Your task to perform on an android device: Search for seafood restaurants on Google Maps Image 0: 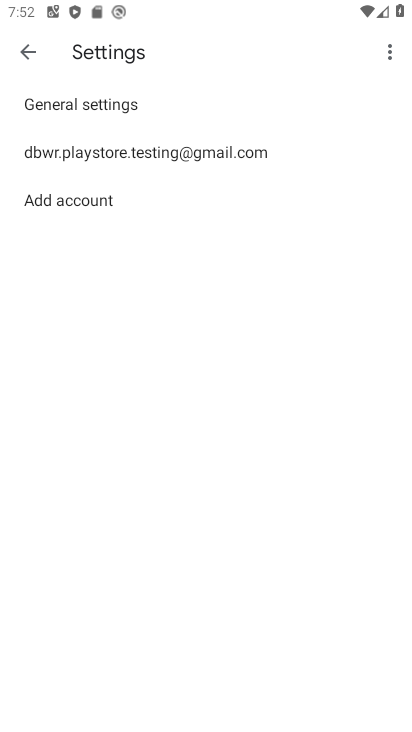
Step 0: press home button
Your task to perform on an android device: Search for seafood restaurants on Google Maps Image 1: 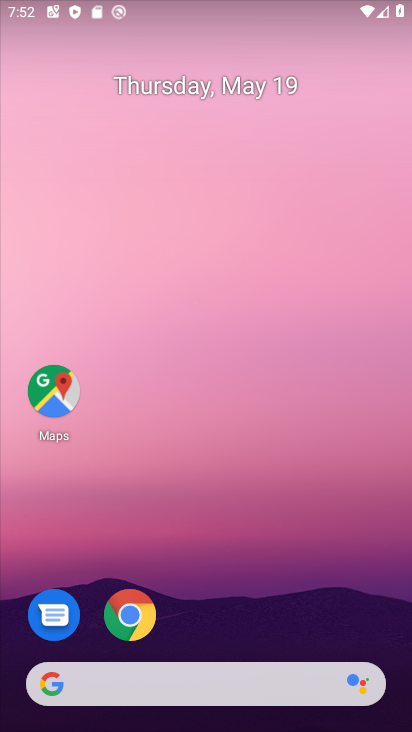
Step 1: drag from (307, 649) to (284, 187)
Your task to perform on an android device: Search for seafood restaurants on Google Maps Image 2: 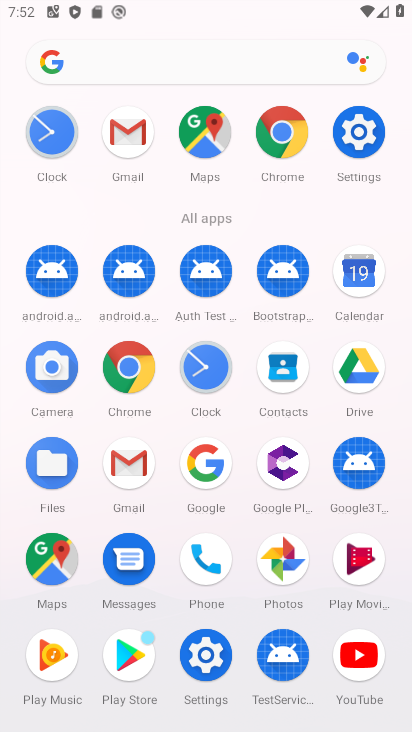
Step 2: click (66, 548)
Your task to perform on an android device: Search for seafood restaurants on Google Maps Image 3: 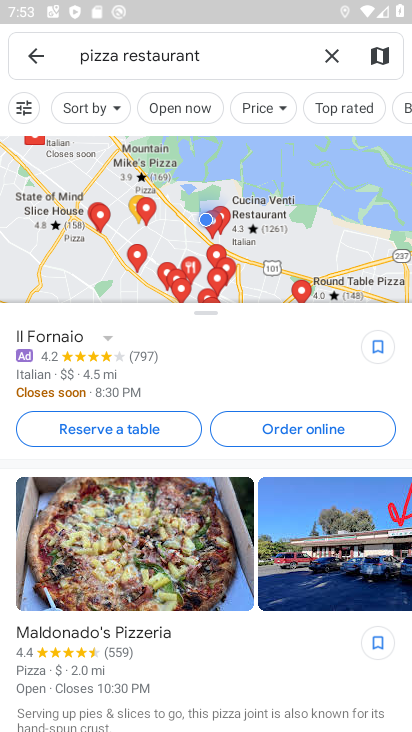
Step 3: click (328, 54)
Your task to perform on an android device: Search for seafood restaurants on Google Maps Image 4: 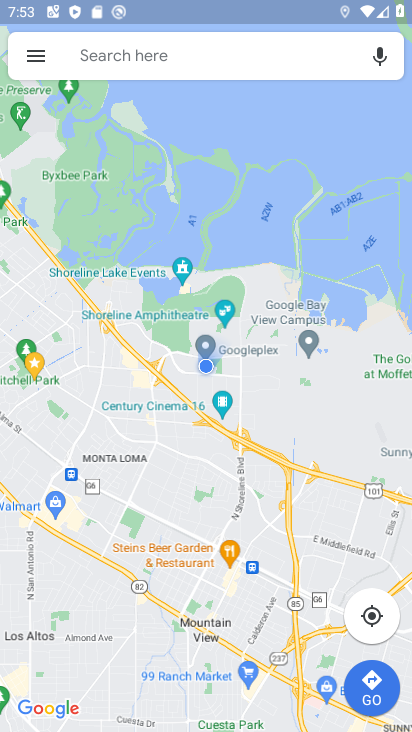
Step 4: click (277, 57)
Your task to perform on an android device: Search for seafood restaurants on Google Maps Image 5: 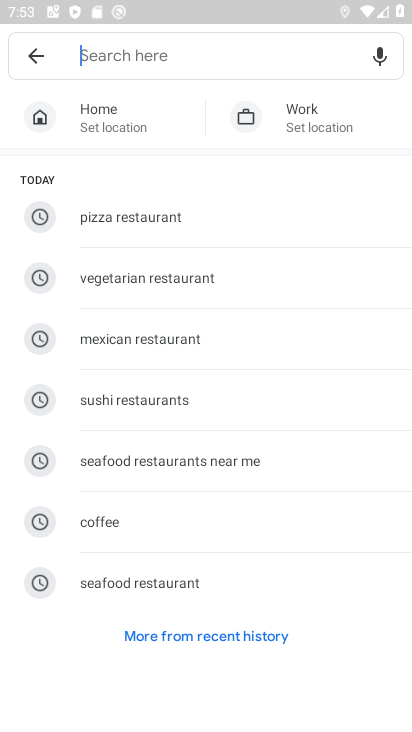
Step 5: click (277, 57)
Your task to perform on an android device: Search for seafood restaurants on Google Maps Image 6: 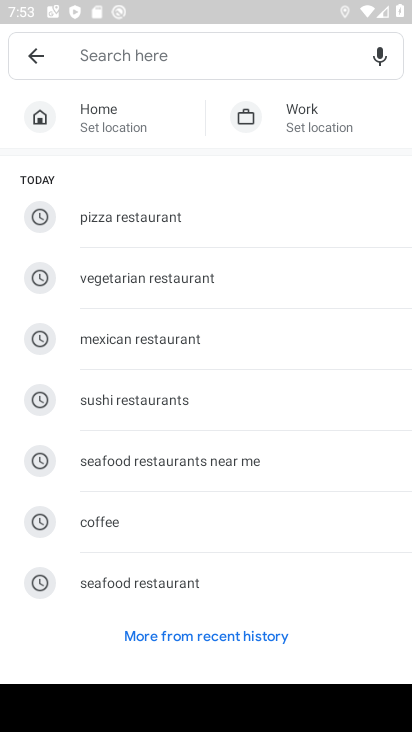
Step 6: click (166, 577)
Your task to perform on an android device: Search for seafood restaurants on Google Maps Image 7: 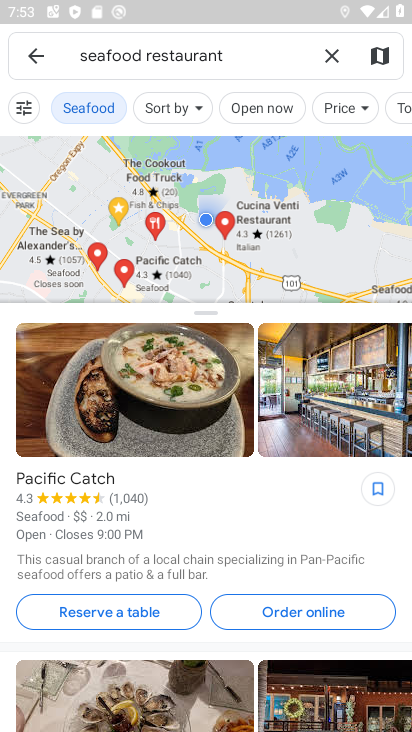
Step 7: task complete